Your task to perform on an android device: Open settings on Google Maps Image 0: 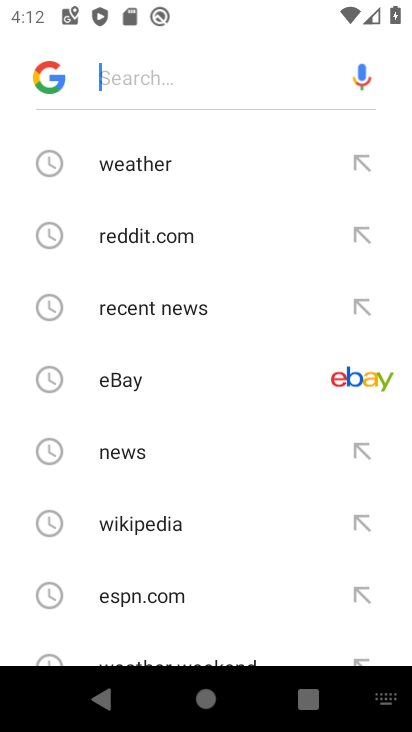
Step 0: press home button
Your task to perform on an android device: Open settings on Google Maps Image 1: 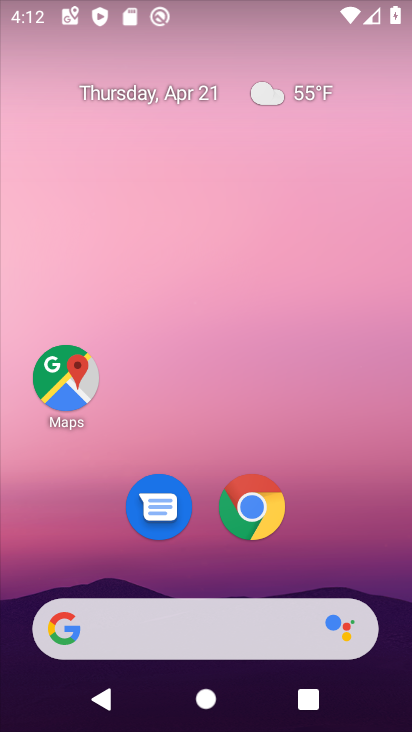
Step 1: click (62, 378)
Your task to perform on an android device: Open settings on Google Maps Image 2: 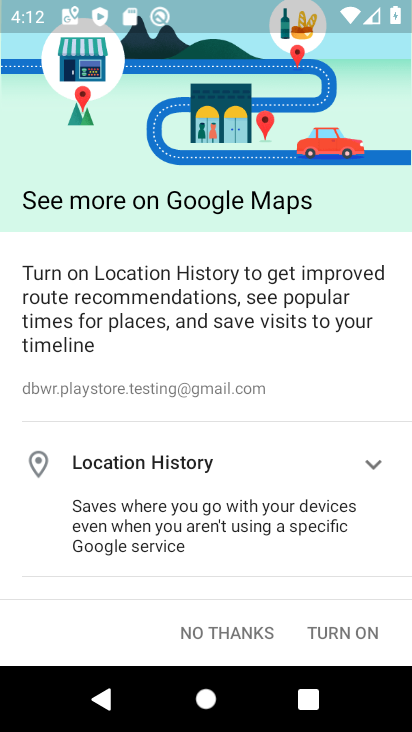
Step 2: click (263, 623)
Your task to perform on an android device: Open settings on Google Maps Image 3: 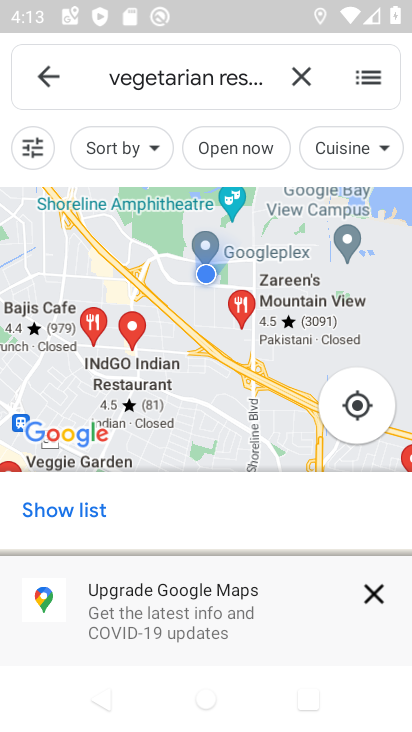
Step 3: click (53, 77)
Your task to perform on an android device: Open settings on Google Maps Image 4: 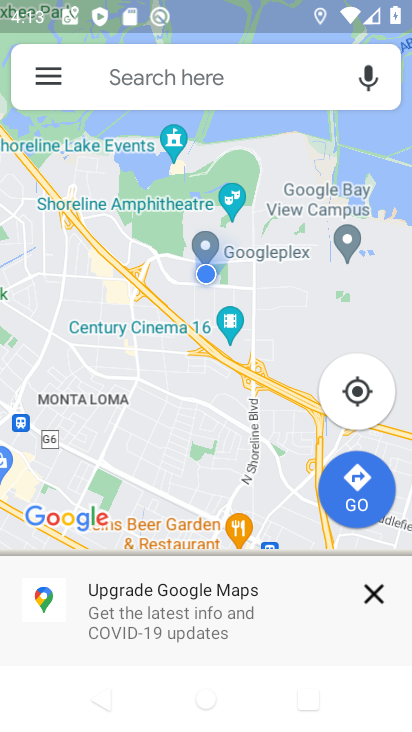
Step 4: click (53, 77)
Your task to perform on an android device: Open settings on Google Maps Image 5: 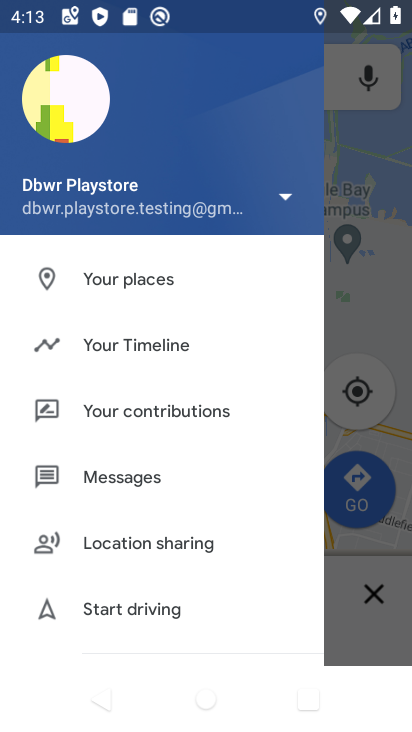
Step 5: click (150, 363)
Your task to perform on an android device: Open settings on Google Maps Image 6: 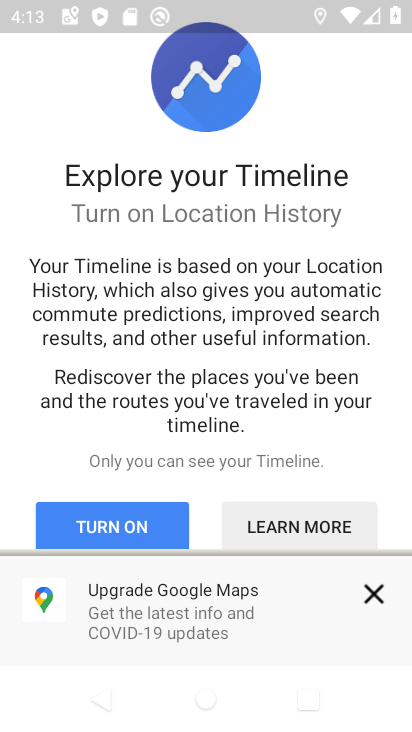
Step 6: click (381, 583)
Your task to perform on an android device: Open settings on Google Maps Image 7: 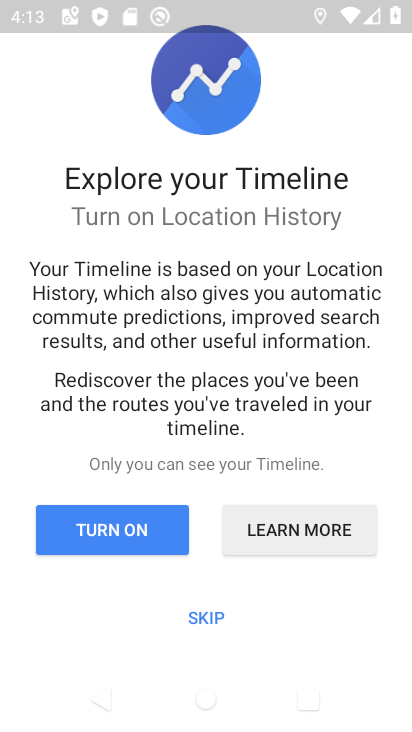
Step 7: click (215, 614)
Your task to perform on an android device: Open settings on Google Maps Image 8: 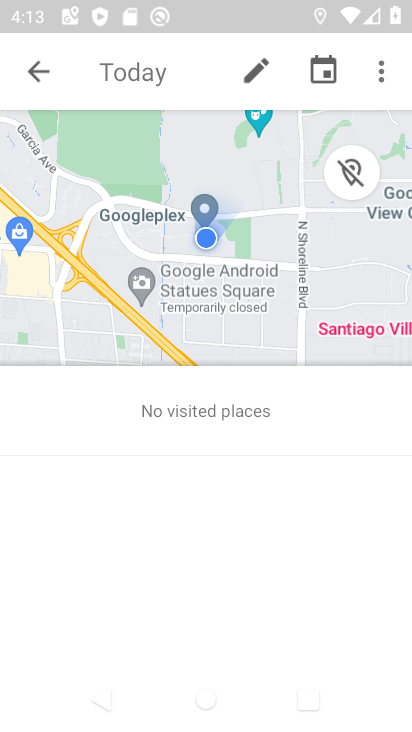
Step 8: click (388, 76)
Your task to perform on an android device: Open settings on Google Maps Image 9: 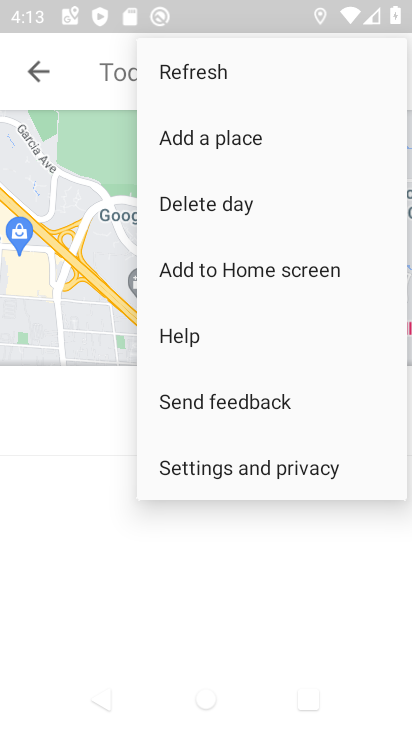
Step 9: click (291, 440)
Your task to perform on an android device: Open settings on Google Maps Image 10: 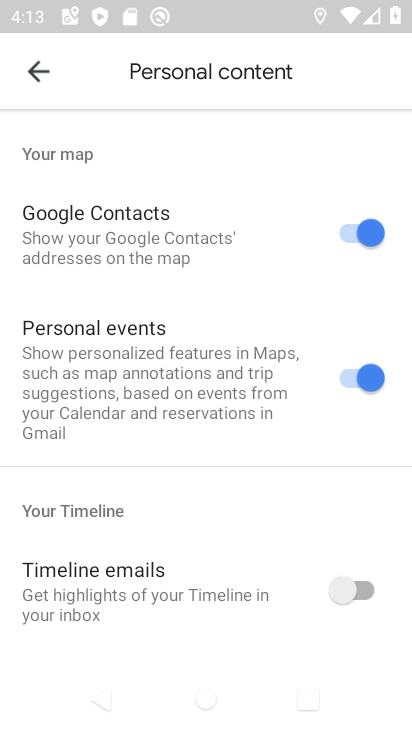
Step 10: task complete